Your task to perform on an android device: allow cookies in the chrome app Image 0: 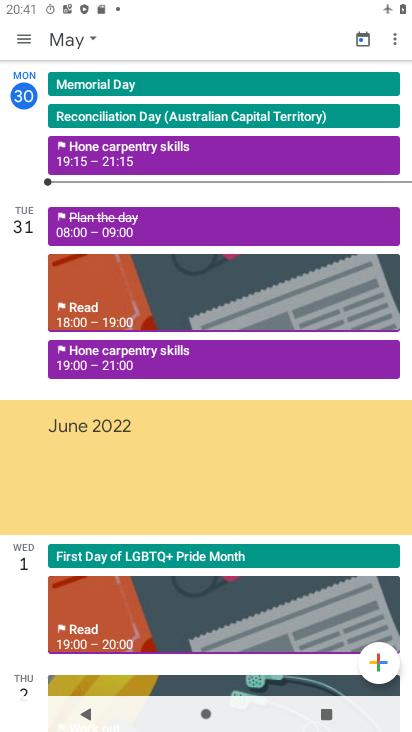
Step 0: press home button
Your task to perform on an android device: allow cookies in the chrome app Image 1: 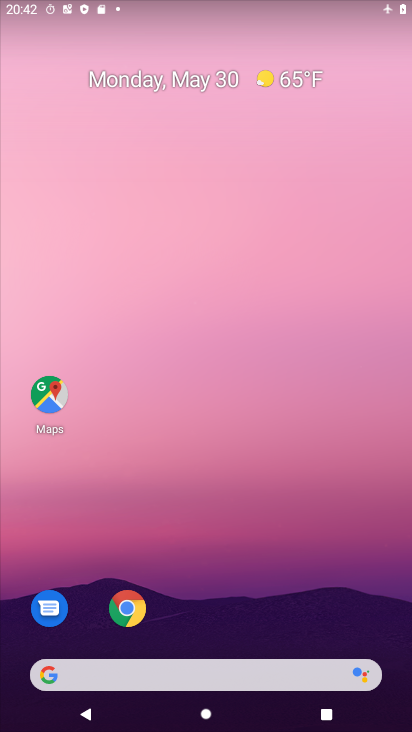
Step 1: click (140, 614)
Your task to perform on an android device: allow cookies in the chrome app Image 2: 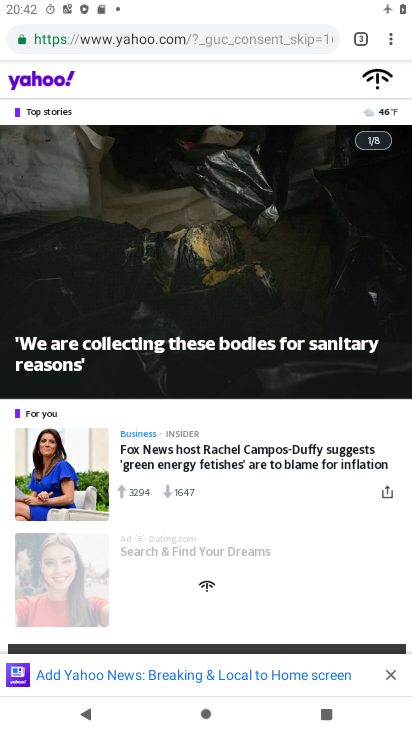
Step 2: click (388, 41)
Your task to perform on an android device: allow cookies in the chrome app Image 3: 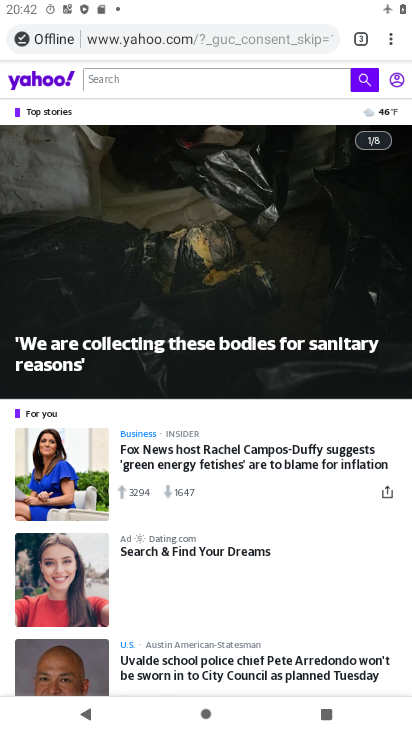
Step 3: click (385, 44)
Your task to perform on an android device: allow cookies in the chrome app Image 4: 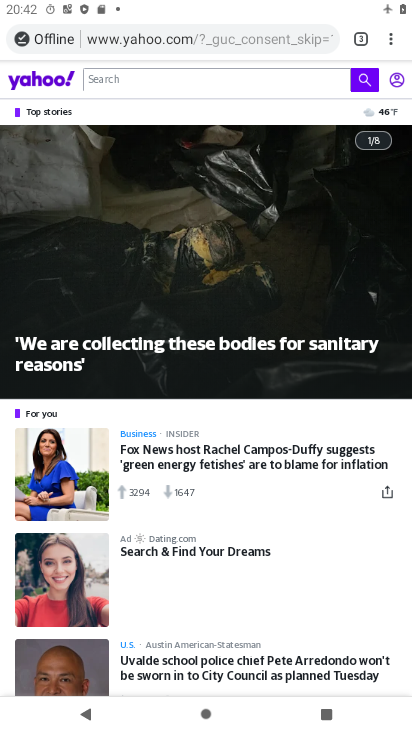
Step 4: drag from (386, 39) to (284, 429)
Your task to perform on an android device: allow cookies in the chrome app Image 5: 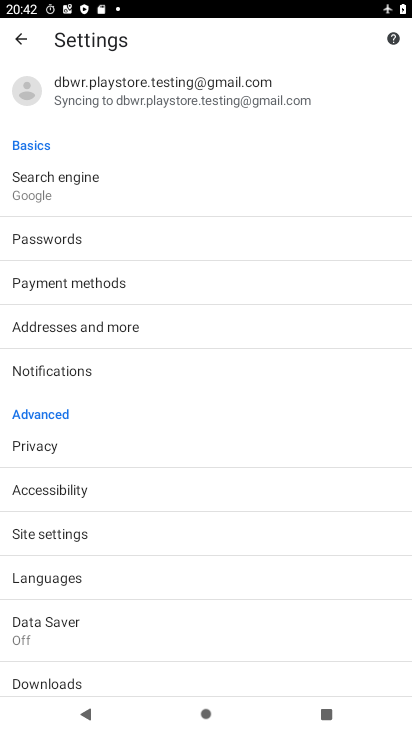
Step 5: drag from (241, 575) to (250, 295)
Your task to perform on an android device: allow cookies in the chrome app Image 6: 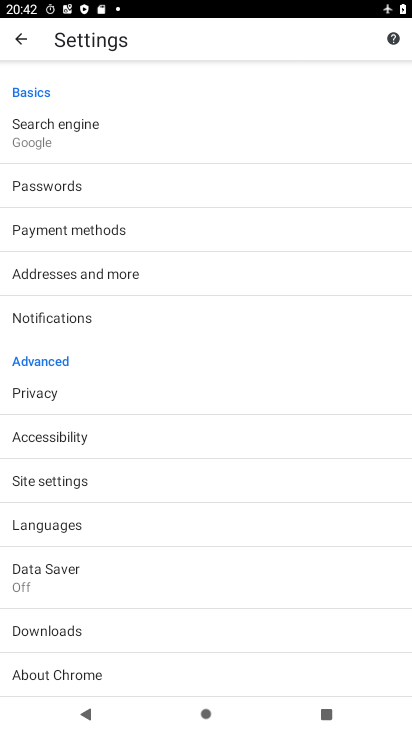
Step 6: click (98, 484)
Your task to perform on an android device: allow cookies in the chrome app Image 7: 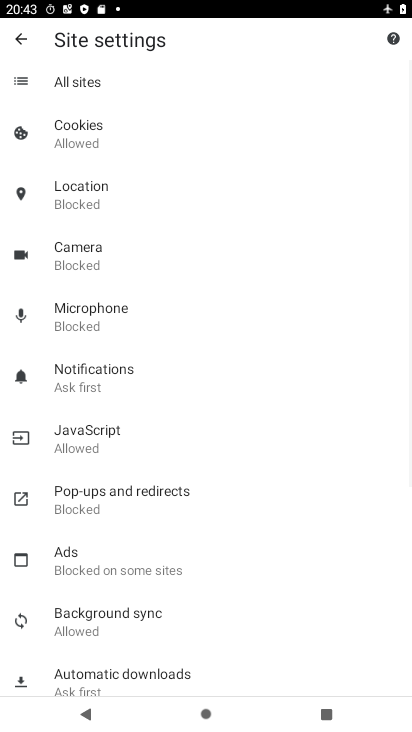
Step 7: click (108, 135)
Your task to perform on an android device: allow cookies in the chrome app Image 8: 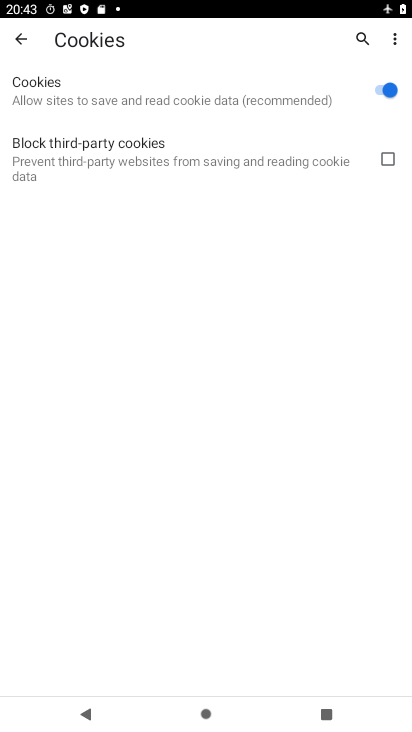
Step 8: task complete